Your task to perform on an android device: Open eBay Image 0: 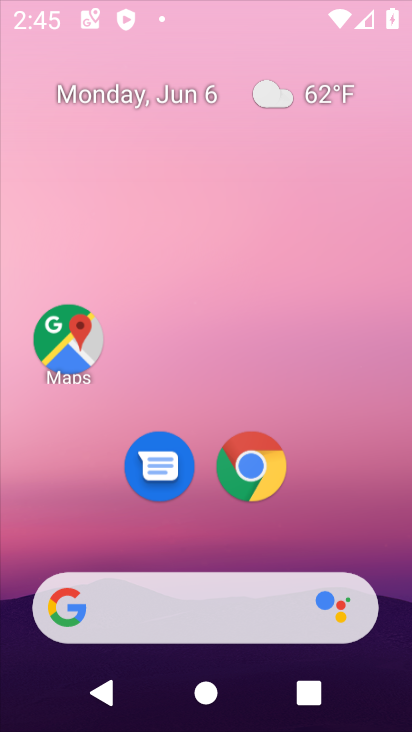
Step 0: drag from (187, 113) to (186, 15)
Your task to perform on an android device: Open eBay Image 1: 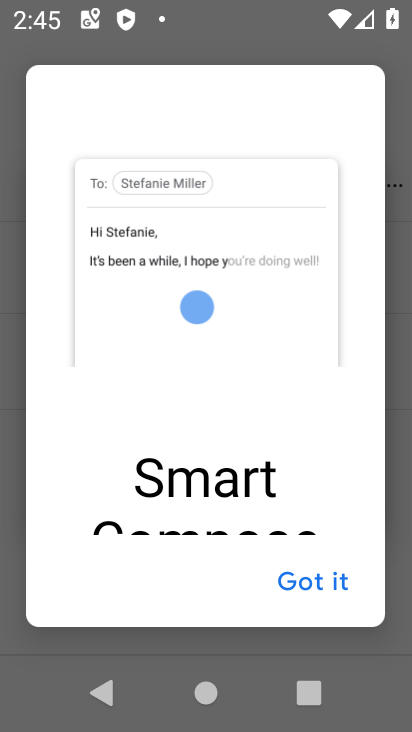
Step 1: press back button
Your task to perform on an android device: Open eBay Image 2: 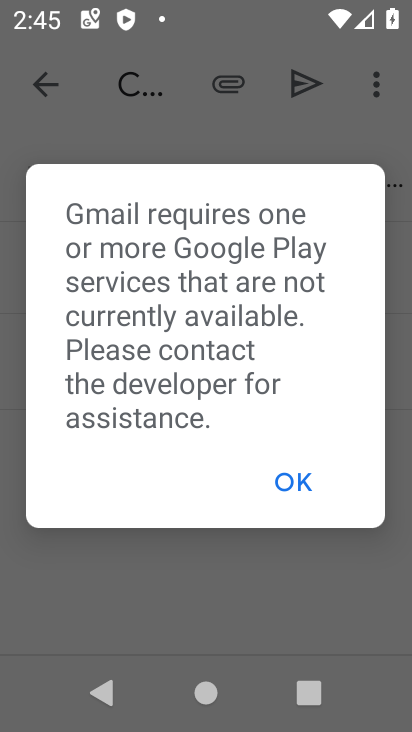
Step 2: click (302, 487)
Your task to perform on an android device: Open eBay Image 3: 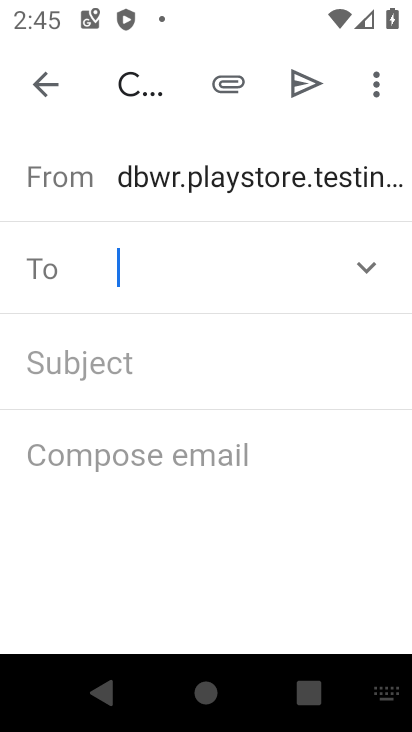
Step 3: click (53, 106)
Your task to perform on an android device: Open eBay Image 4: 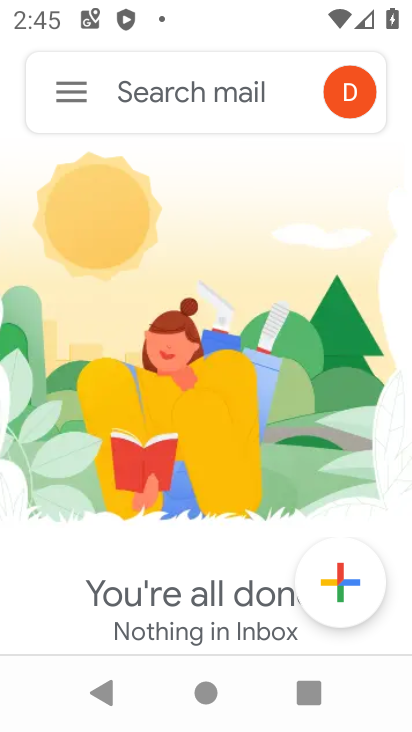
Step 4: press home button
Your task to perform on an android device: Open eBay Image 5: 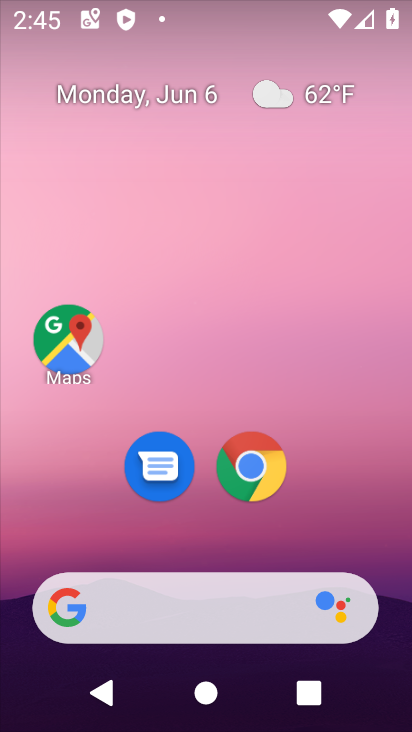
Step 5: drag from (231, 694) to (189, 82)
Your task to perform on an android device: Open eBay Image 6: 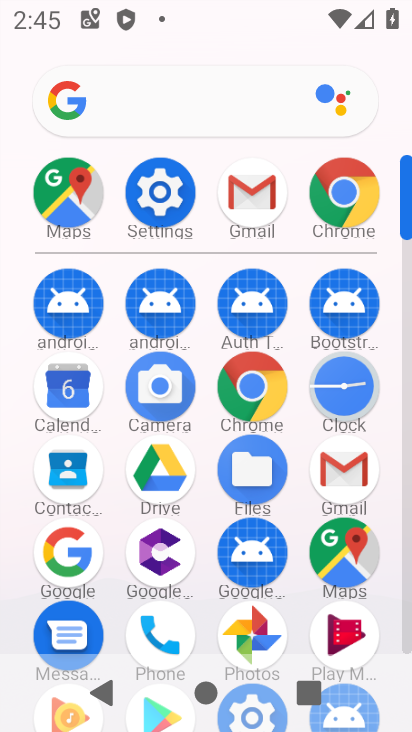
Step 6: click (344, 193)
Your task to perform on an android device: Open eBay Image 7: 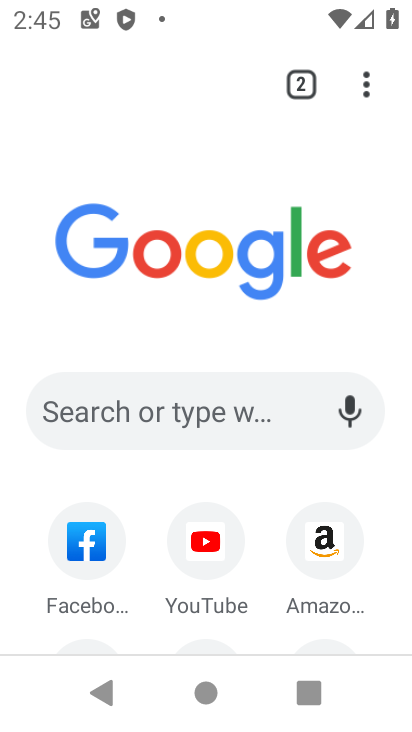
Step 7: click (103, 410)
Your task to perform on an android device: Open eBay Image 8: 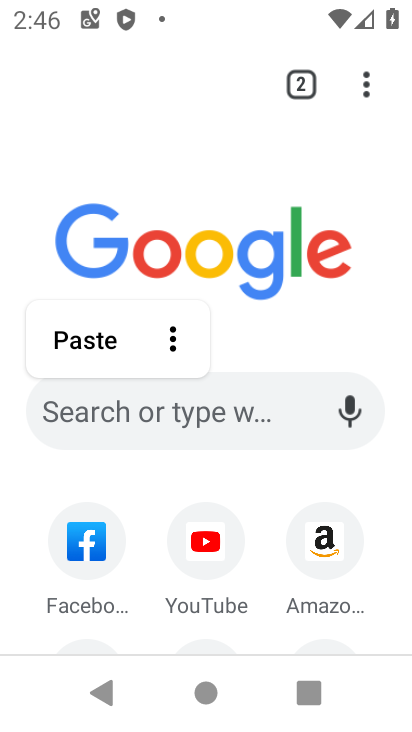
Step 8: type "ebay.com"
Your task to perform on an android device: Open eBay Image 9: 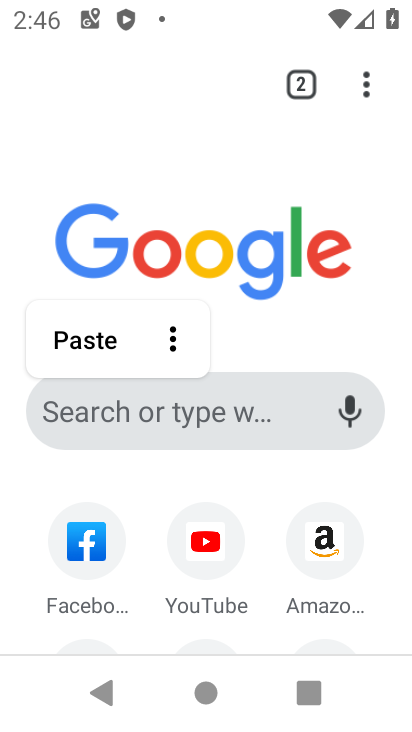
Step 9: click (108, 407)
Your task to perform on an android device: Open eBay Image 10: 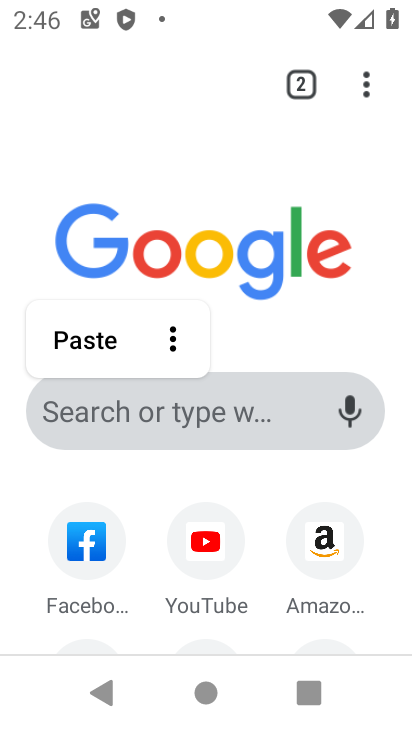
Step 10: click (92, 401)
Your task to perform on an android device: Open eBay Image 11: 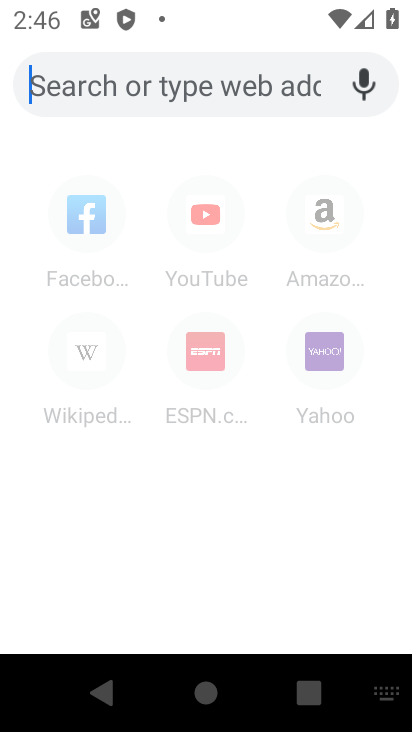
Step 11: type "ebay.com"
Your task to perform on an android device: Open eBay Image 12: 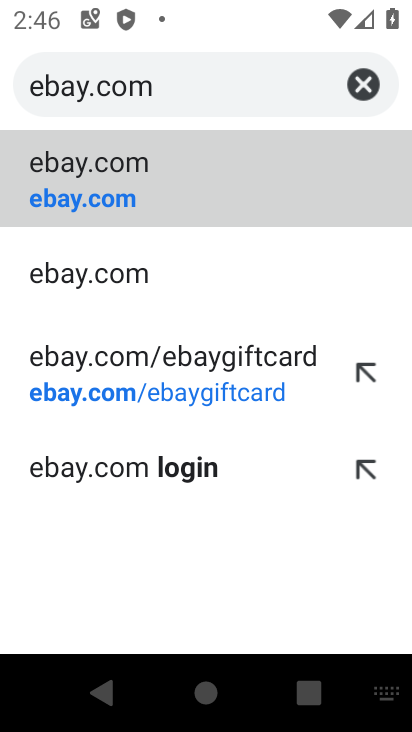
Step 12: click (96, 213)
Your task to perform on an android device: Open eBay Image 13: 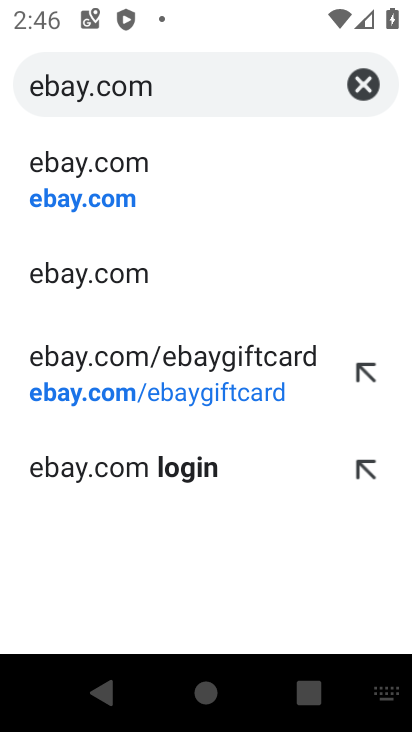
Step 13: click (82, 167)
Your task to perform on an android device: Open eBay Image 14: 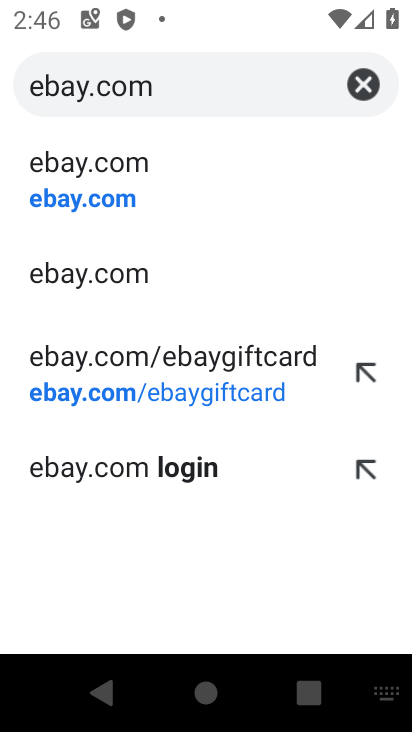
Step 14: click (100, 198)
Your task to perform on an android device: Open eBay Image 15: 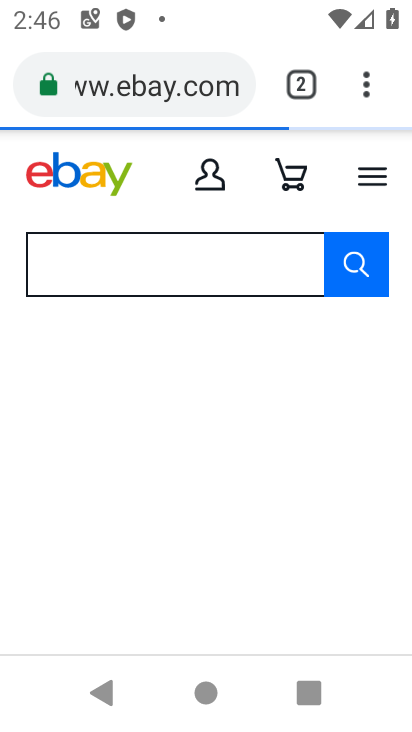
Step 15: task complete